Your task to perform on an android device: Open accessibility settings Image 0: 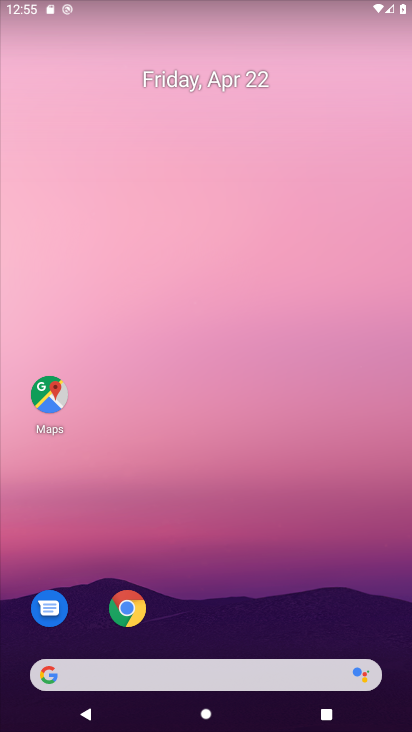
Step 0: drag from (241, 568) to (202, 27)
Your task to perform on an android device: Open accessibility settings Image 1: 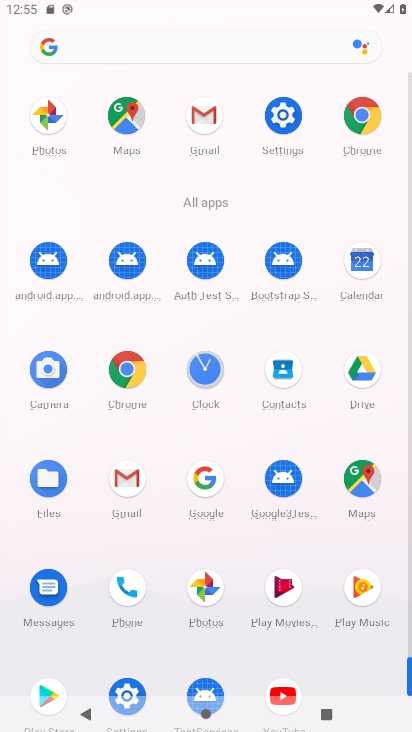
Step 1: click (133, 688)
Your task to perform on an android device: Open accessibility settings Image 2: 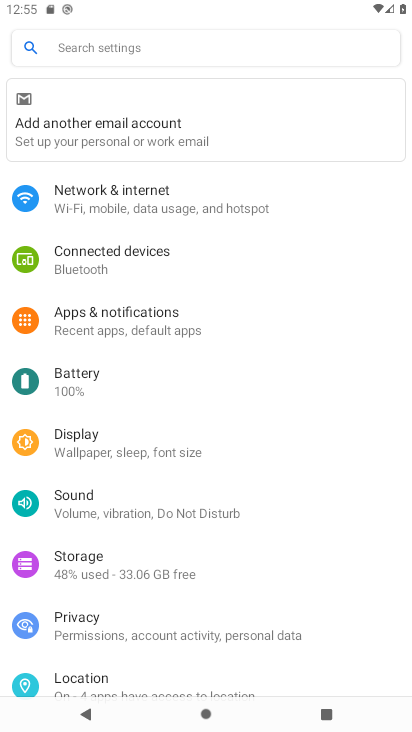
Step 2: drag from (321, 601) to (265, 19)
Your task to perform on an android device: Open accessibility settings Image 3: 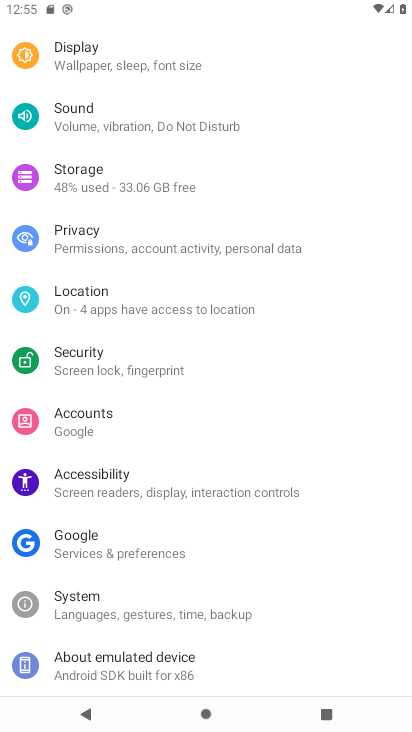
Step 3: click (70, 473)
Your task to perform on an android device: Open accessibility settings Image 4: 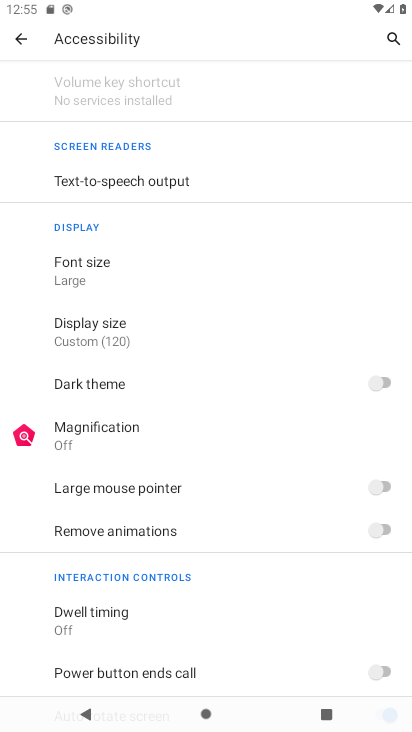
Step 4: task complete